Your task to perform on an android device: turn notification dots off Image 0: 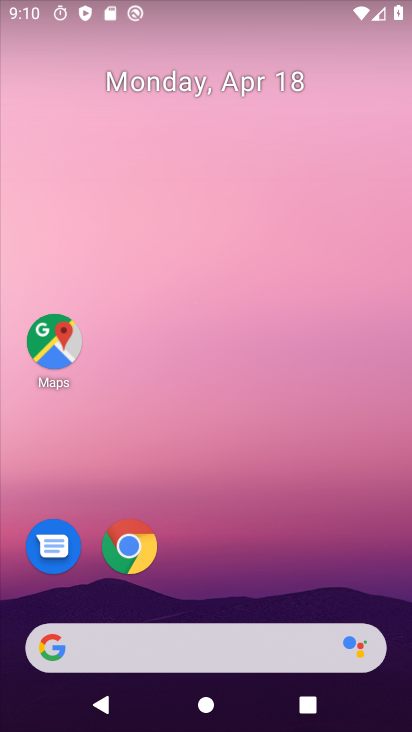
Step 0: drag from (277, 540) to (353, 36)
Your task to perform on an android device: turn notification dots off Image 1: 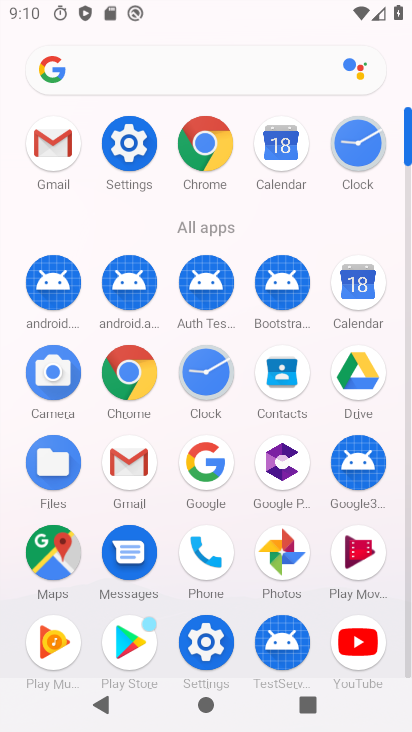
Step 1: click (137, 142)
Your task to perform on an android device: turn notification dots off Image 2: 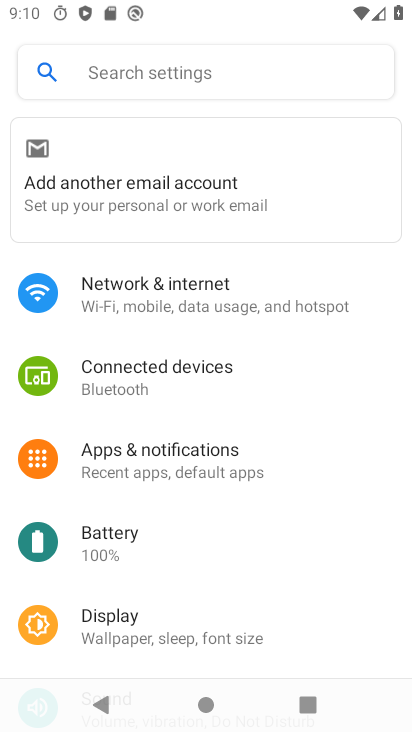
Step 2: click (156, 453)
Your task to perform on an android device: turn notification dots off Image 3: 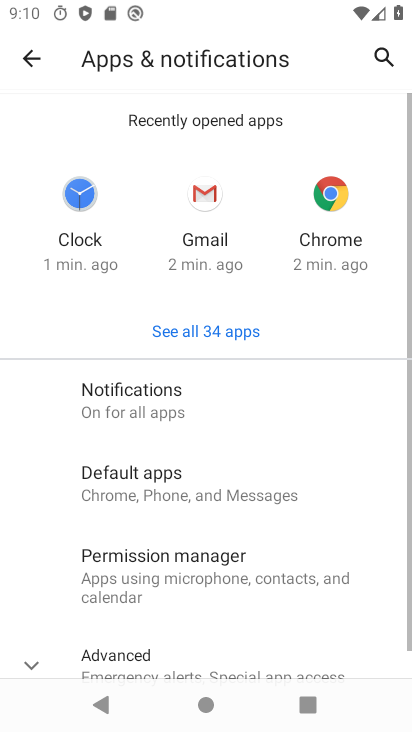
Step 3: click (147, 403)
Your task to perform on an android device: turn notification dots off Image 4: 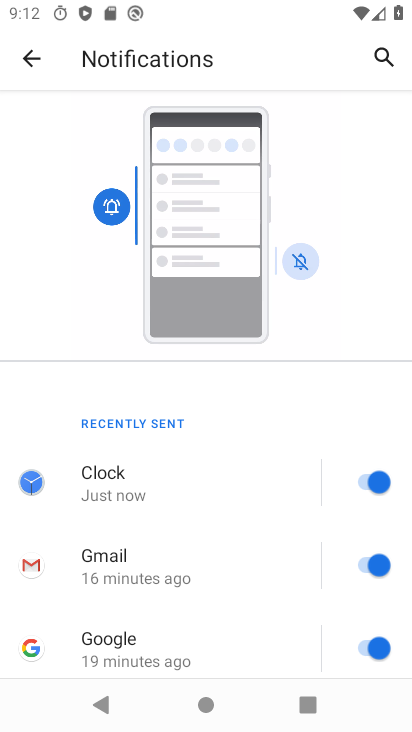
Step 4: drag from (239, 551) to (318, 110)
Your task to perform on an android device: turn notification dots off Image 5: 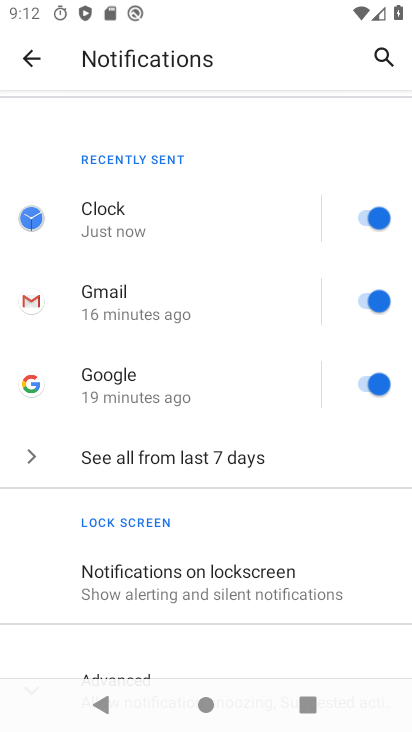
Step 5: click (240, 599)
Your task to perform on an android device: turn notification dots off Image 6: 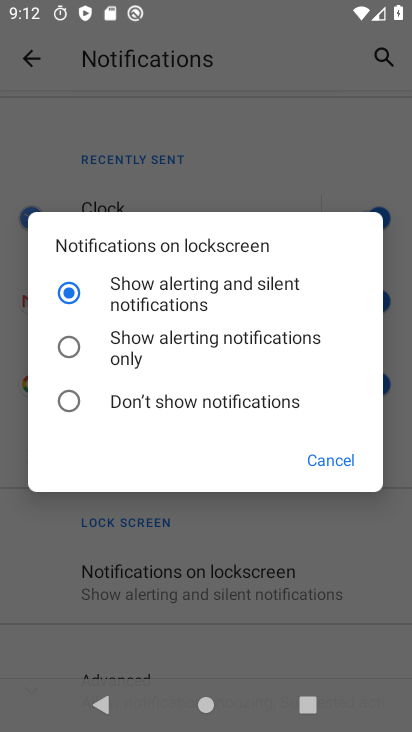
Step 6: click (319, 453)
Your task to perform on an android device: turn notification dots off Image 7: 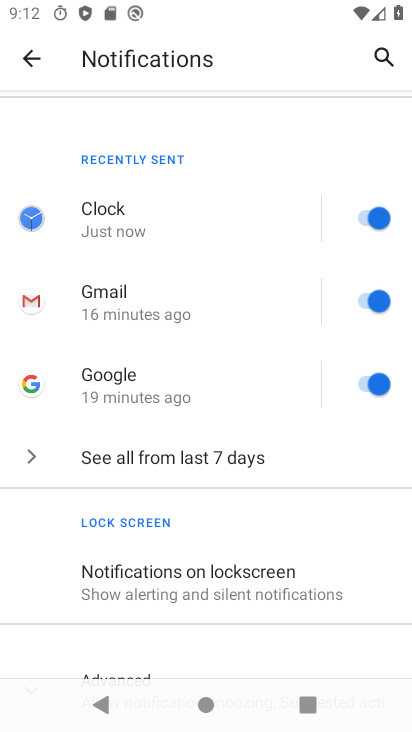
Step 7: drag from (218, 322) to (218, 183)
Your task to perform on an android device: turn notification dots off Image 8: 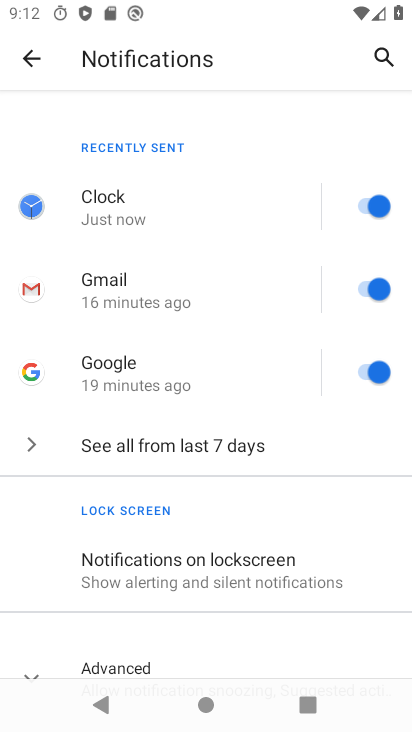
Step 8: drag from (267, 529) to (342, 195)
Your task to perform on an android device: turn notification dots off Image 9: 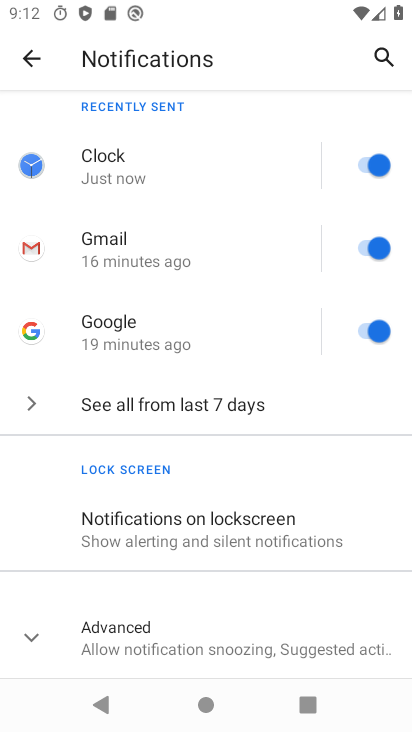
Step 9: drag from (289, 500) to (243, 171)
Your task to perform on an android device: turn notification dots off Image 10: 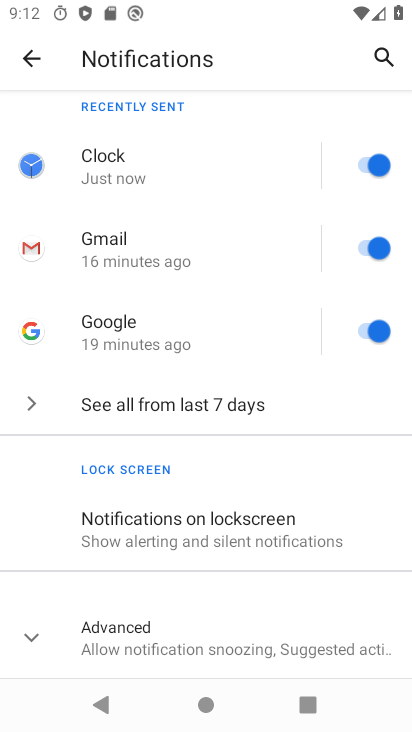
Step 10: click (159, 639)
Your task to perform on an android device: turn notification dots off Image 11: 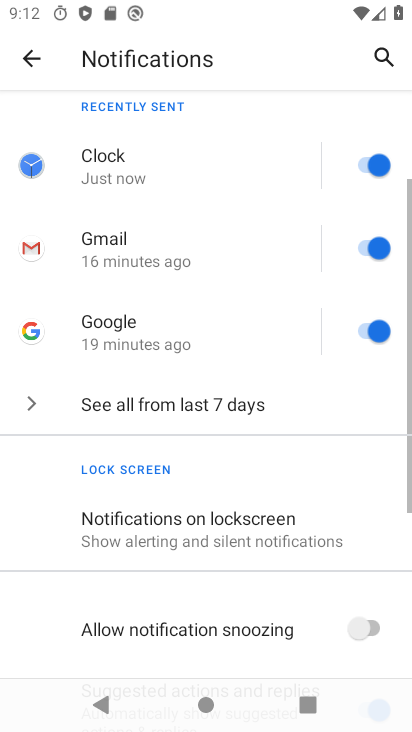
Step 11: drag from (163, 616) to (195, 295)
Your task to perform on an android device: turn notification dots off Image 12: 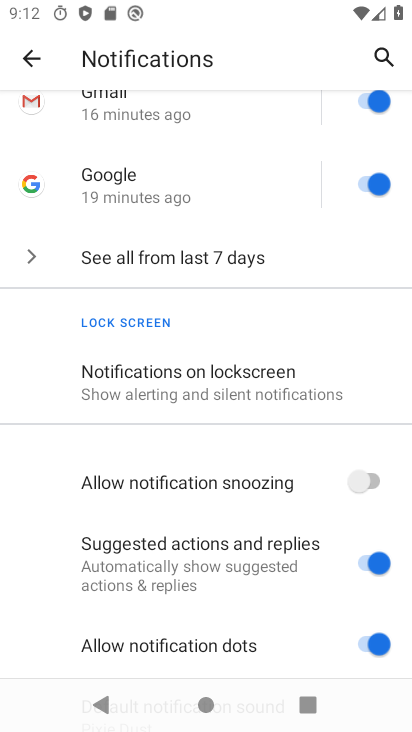
Step 12: drag from (256, 593) to (246, 310)
Your task to perform on an android device: turn notification dots off Image 13: 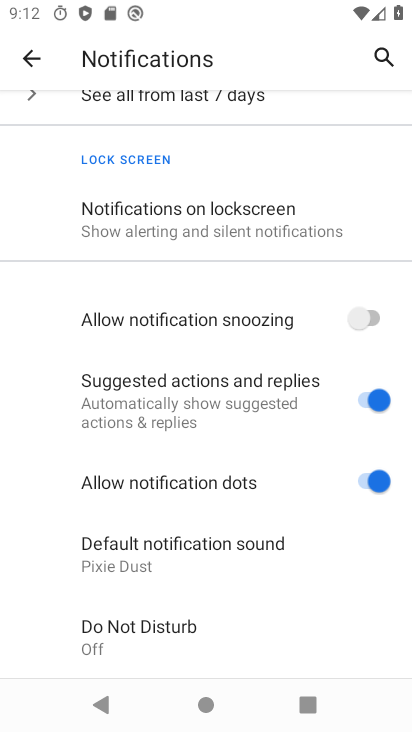
Step 13: drag from (121, 517) to (126, 140)
Your task to perform on an android device: turn notification dots off Image 14: 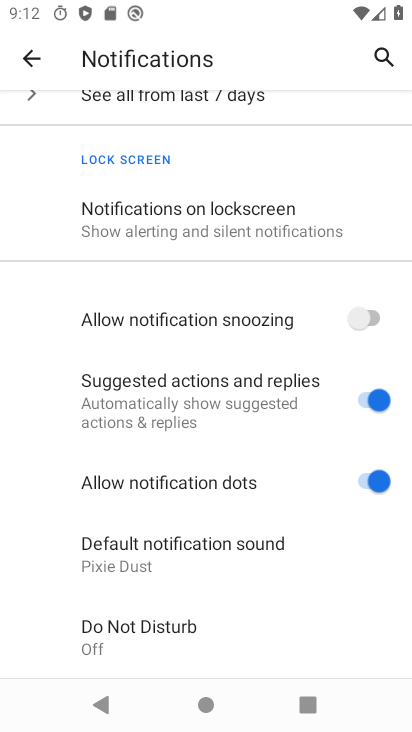
Step 14: click (359, 497)
Your task to perform on an android device: turn notification dots off Image 15: 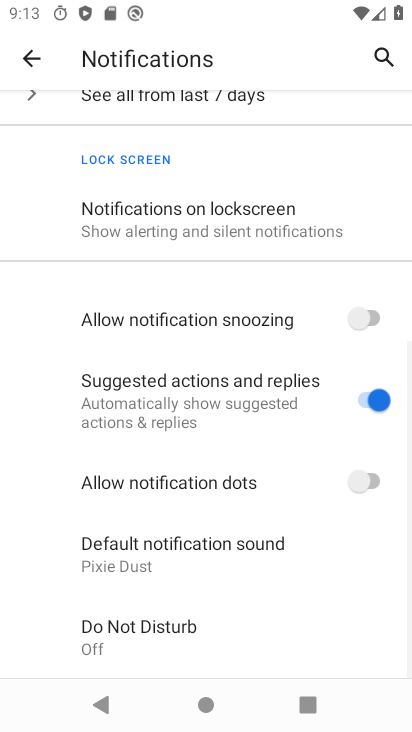
Step 15: task complete